Your task to perform on an android device: stop showing notifications on the lock screen Image 0: 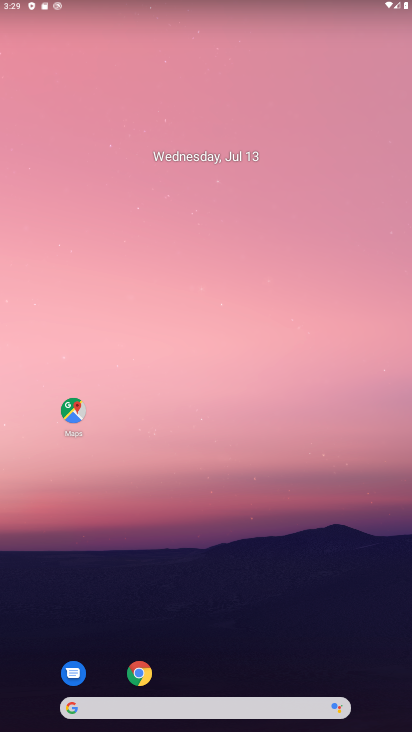
Step 0: drag from (255, 651) to (367, 146)
Your task to perform on an android device: stop showing notifications on the lock screen Image 1: 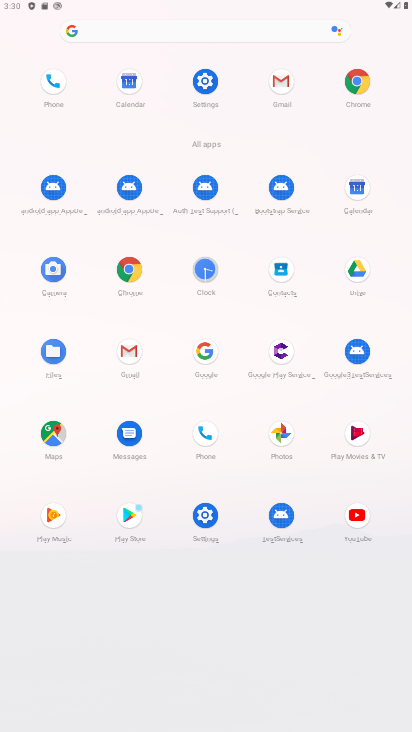
Step 1: click (209, 509)
Your task to perform on an android device: stop showing notifications on the lock screen Image 2: 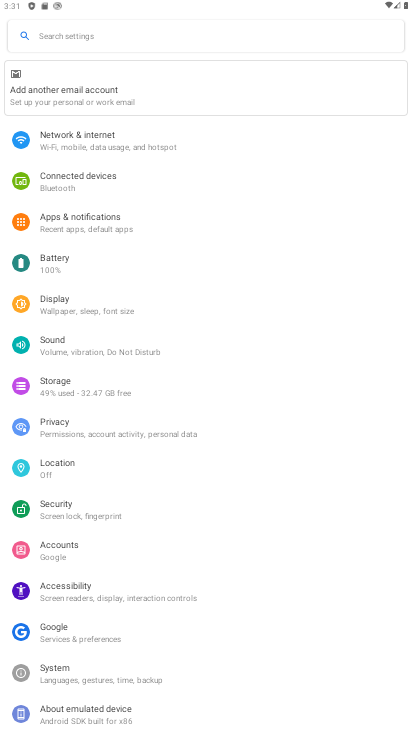
Step 2: click (106, 226)
Your task to perform on an android device: stop showing notifications on the lock screen Image 3: 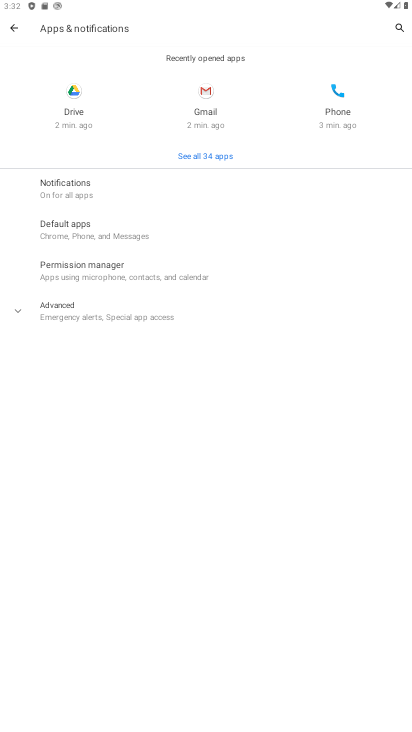
Step 3: click (46, 180)
Your task to perform on an android device: stop showing notifications on the lock screen Image 4: 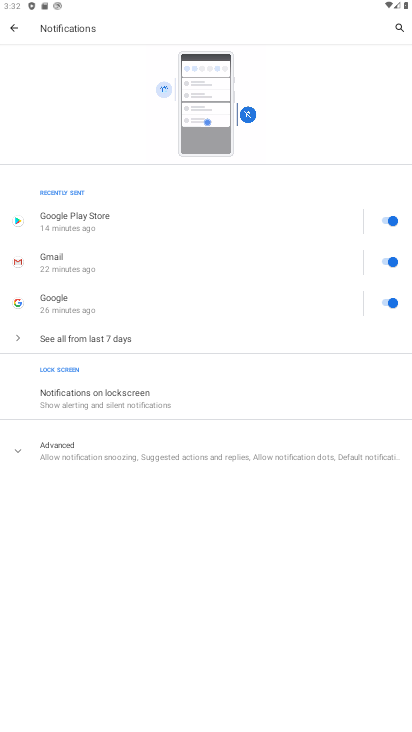
Step 4: click (85, 385)
Your task to perform on an android device: stop showing notifications on the lock screen Image 5: 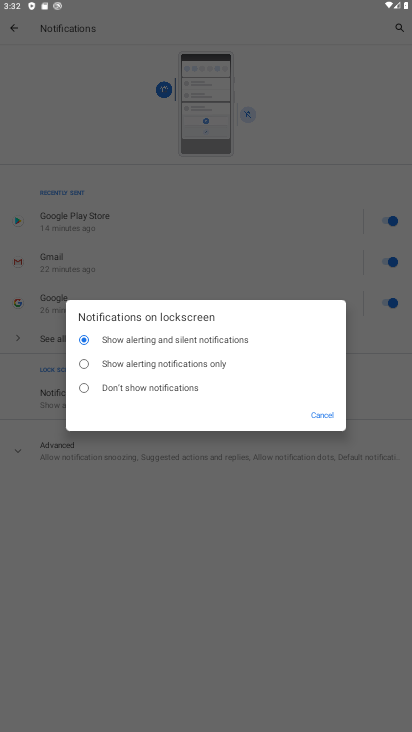
Step 5: click (120, 383)
Your task to perform on an android device: stop showing notifications on the lock screen Image 6: 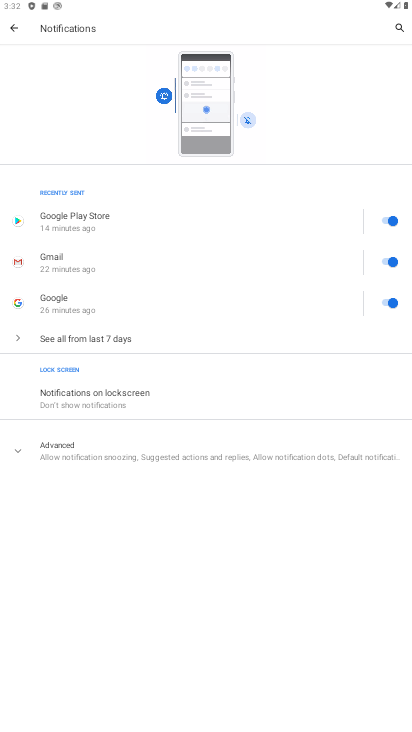
Step 6: task complete